Your task to perform on an android device: Search for pizza restaurants on Maps Image 0: 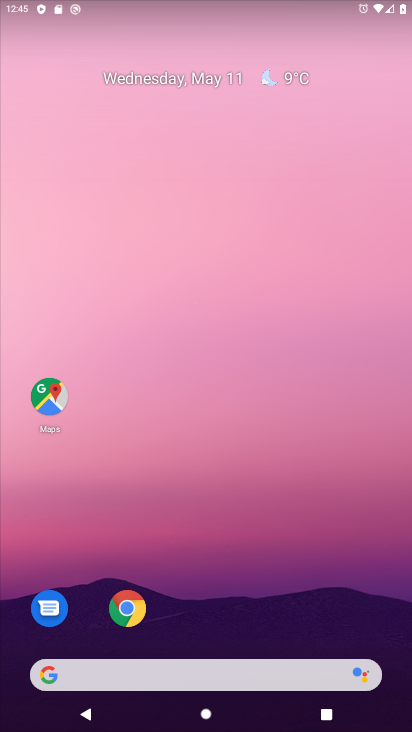
Step 0: drag from (251, 585) to (201, 311)
Your task to perform on an android device: Search for pizza restaurants on Maps Image 1: 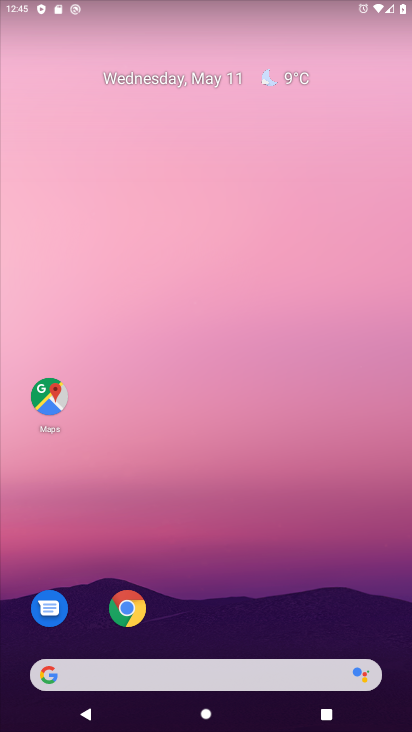
Step 1: drag from (248, 688) to (224, 352)
Your task to perform on an android device: Search for pizza restaurants on Maps Image 2: 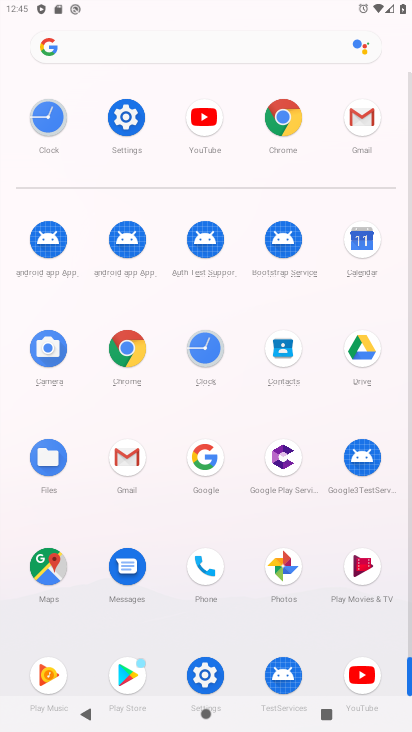
Step 2: click (42, 582)
Your task to perform on an android device: Search for pizza restaurants on Maps Image 3: 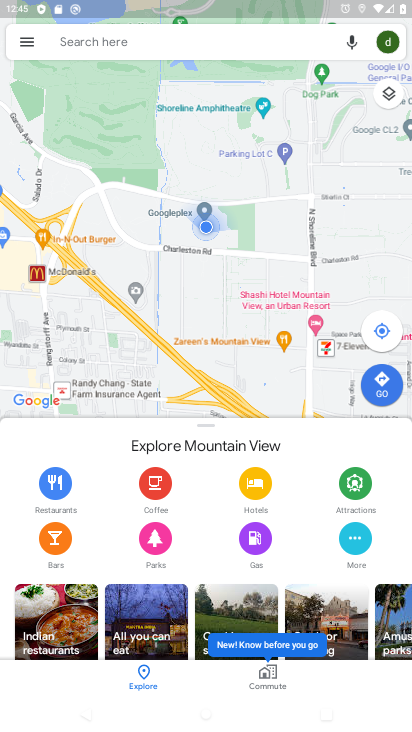
Step 3: click (222, 56)
Your task to perform on an android device: Search for pizza restaurants on Maps Image 4: 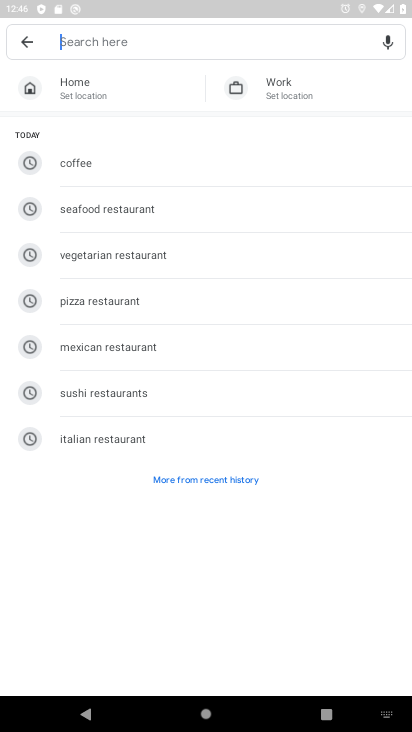
Step 4: click (118, 314)
Your task to perform on an android device: Search for pizza restaurants on Maps Image 5: 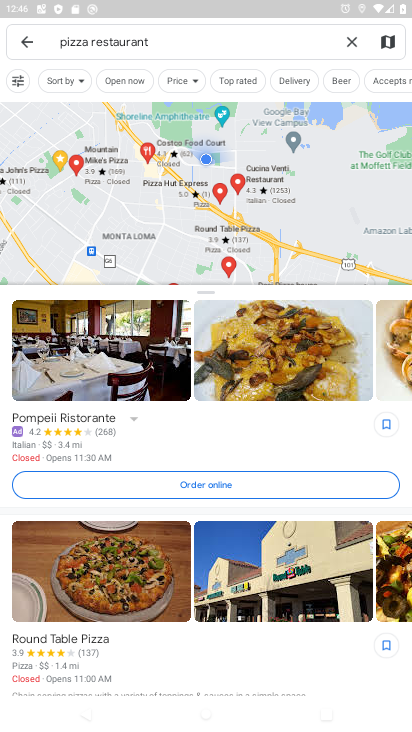
Step 5: task complete